Your task to perform on an android device: Open Maps and search for coffee Image 0: 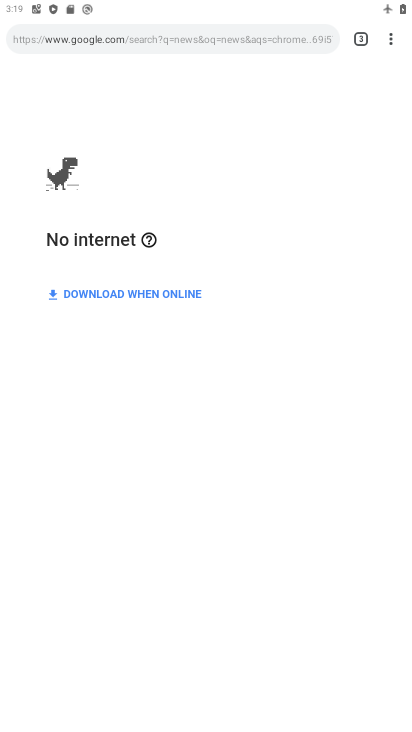
Step 0: press home button
Your task to perform on an android device: Open Maps and search for coffee Image 1: 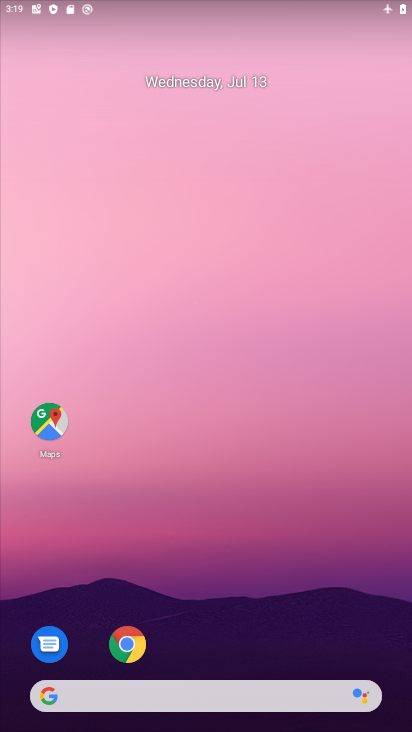
Step 1: drag from (273, 599) to (224, 114)
Your task to perform on an android device: Open Maps and search for coffee Image 2: 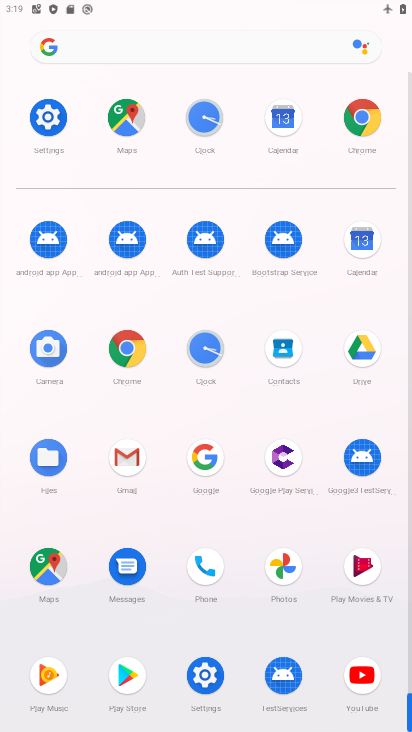
Step 2: click (55, 567)
Your task to perform on an android device: Open Maps and search for coffee Image 3: 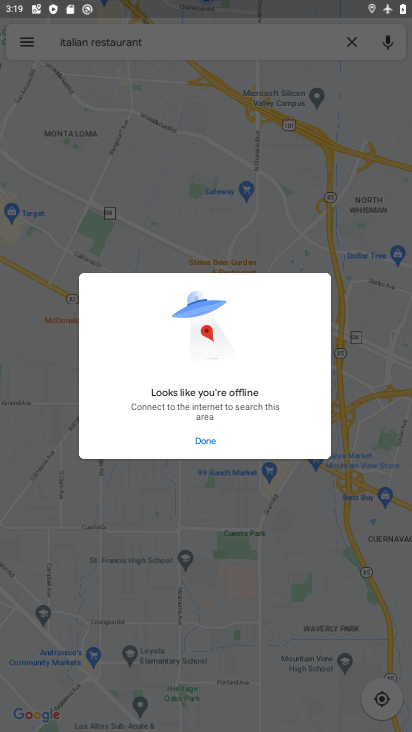
Step 3: click (205, 443)
Your task to perform on an android device: Open Maps and search for coffee Image 4: 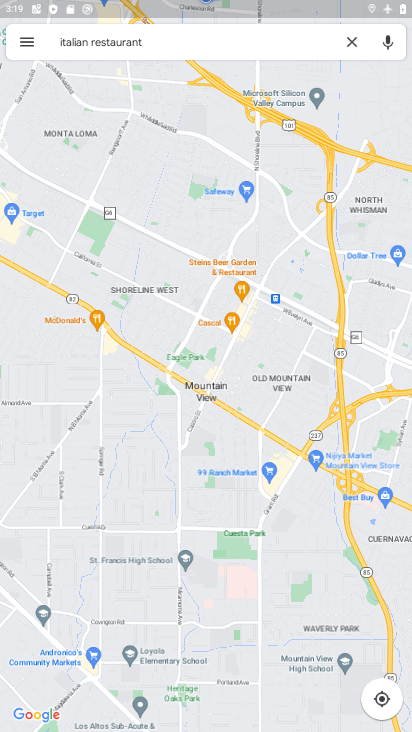
Step 4: click (228, 44)
Your task to perform on an android device: Open Maps and search for coffee Image 5: 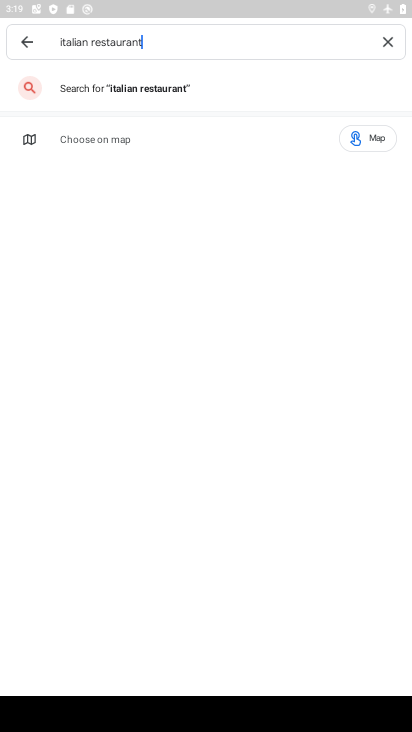
Step 5: click (393, 37)
Your task to perform on an android device: Open Maps and search for coffee Image 6: 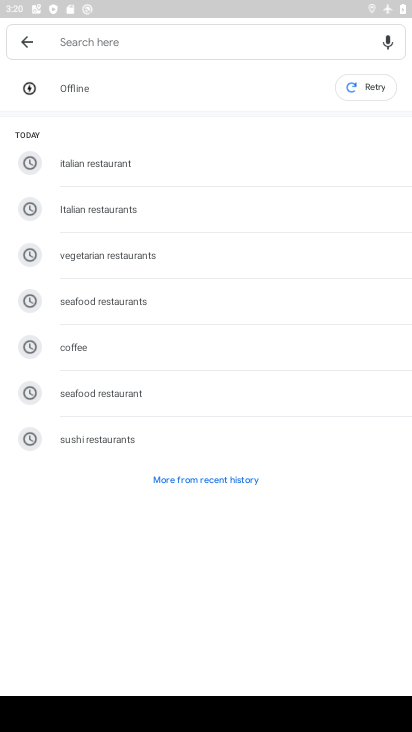
Step 6: click (62, 85)
Your task to perform on an android device: Open Maps and search for coffee Image 7: 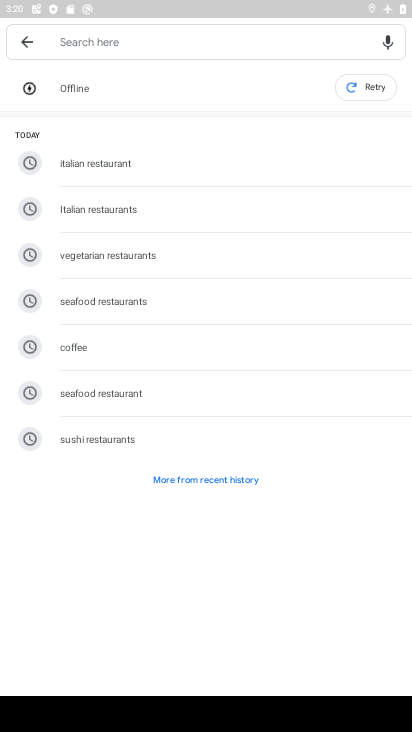
Step 7: click (73, 85)
Your task to perform on an android device: Open Maps and search for coffee Image 8: 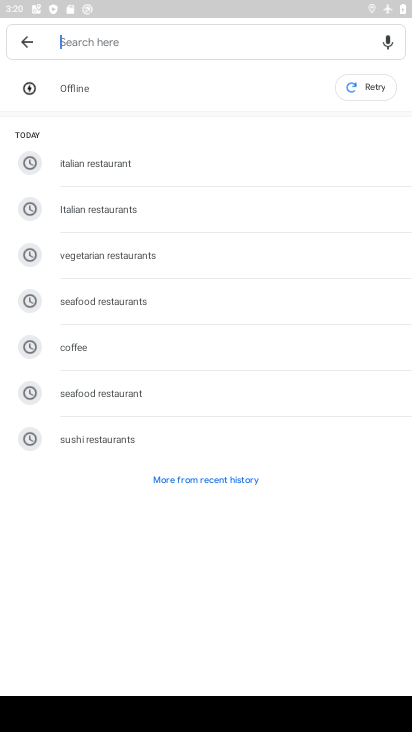
Step 8: click (76, 350)
Your task to perform on an android device: Open Maps and search for coffee Image 9: 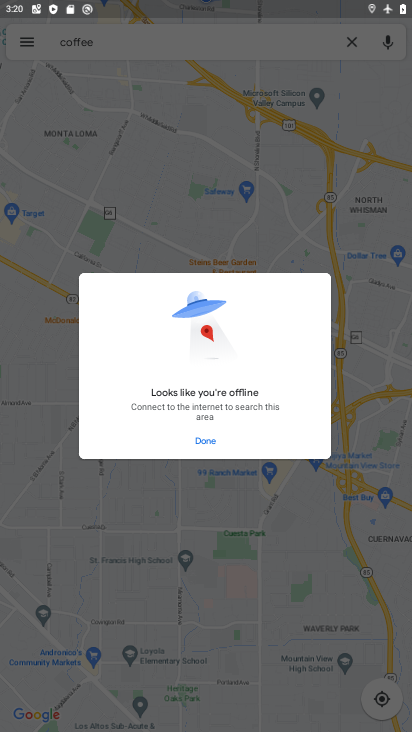
Step 9: task complete